Your task to perform on an android device: set an alarm Image 0: 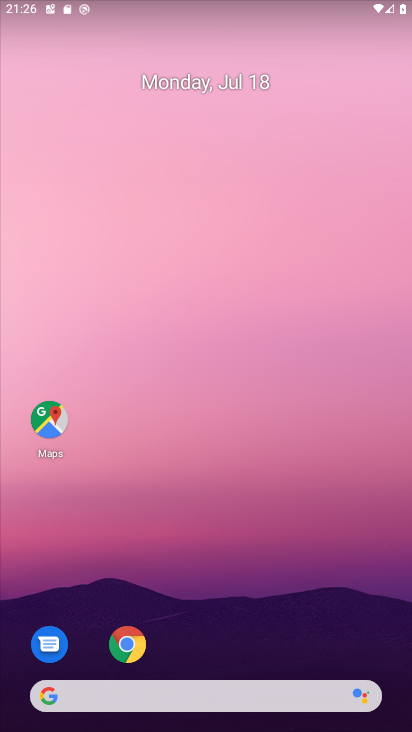
Step 0: drag from (210, 645) to (210, 23)
Your task to perform on an android device: set an alarm Image 1: 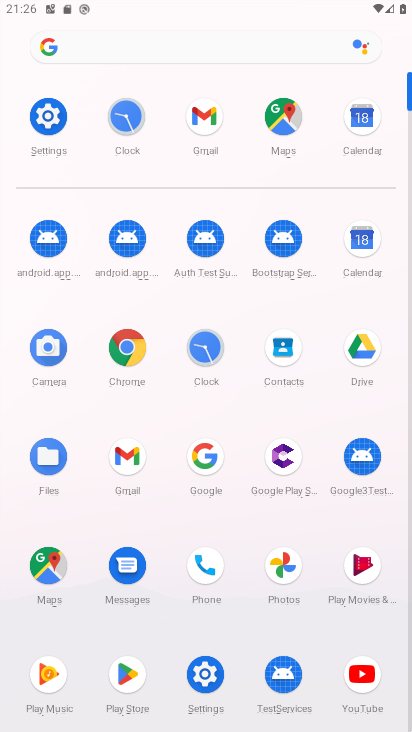
Step 1: click (114, 132)
Your task to perform on an android device: set an alarm Image 2: 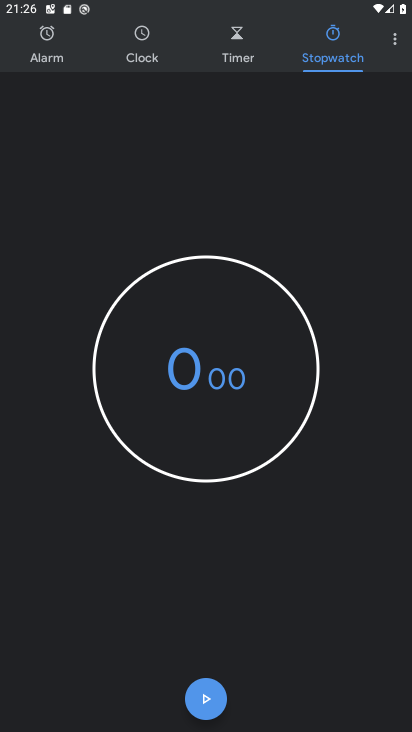
Step 2: click (32, 40)
Your task to perform on an android device: set an alarm Image 3: 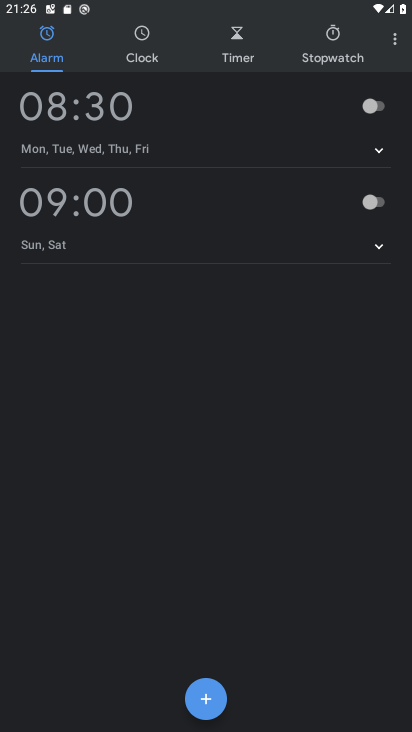
Step 3: click (360, 106)
Your task to perform on an android device: set an alarm Image 4: 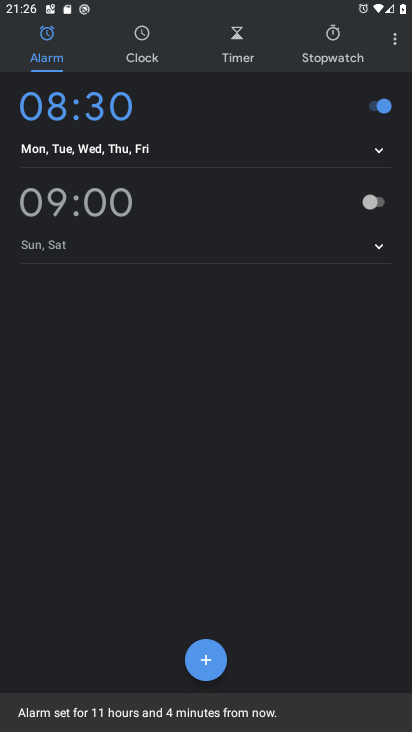
Step 4: task complete